Your task to perform on an android device: turn off smart reply in the gmail app Image 0: 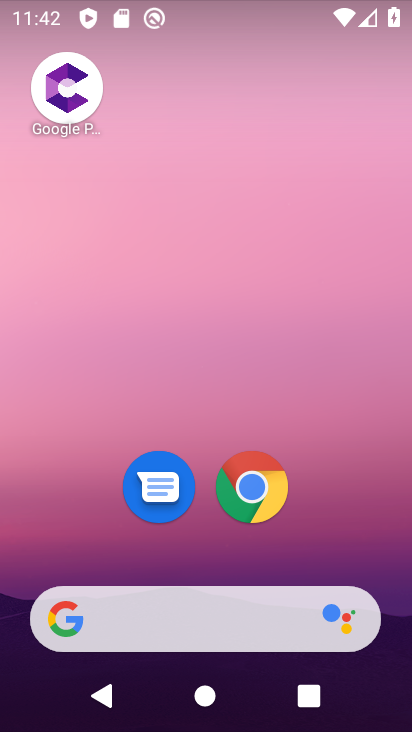
Step 0: drag from (308, 545) to (255, 68)
Your task to perform on an android device: turn off smart reply in the gmail app Image 1: 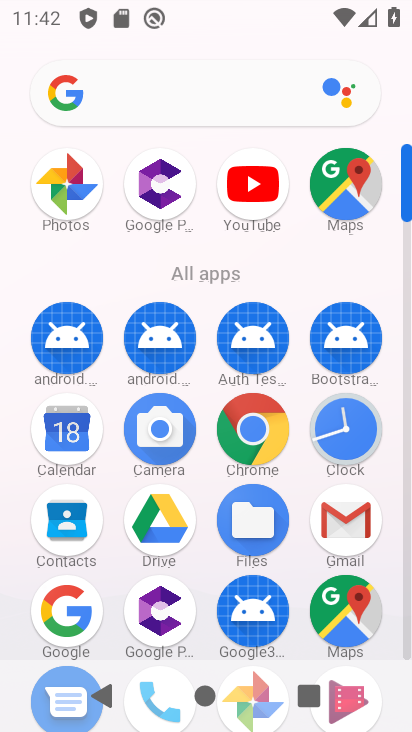
Step 1: click (323, 512)
Your task to perform on an android device: turn off smart reply in the gmail app Image 2: 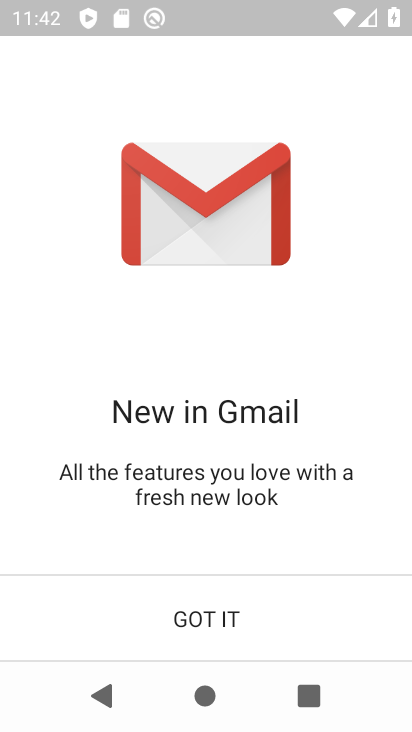
Step 2: click (224, 620)
Your task to perform on an android device: turn off smart reply in the gmail app Image 3: 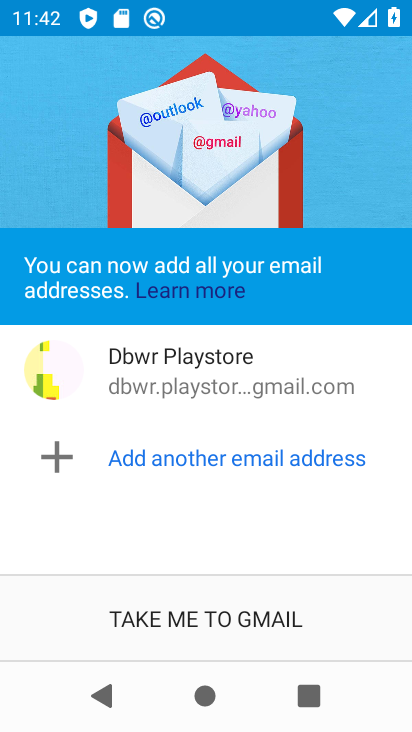
Step 3: click (224, 620)
Your task to perform on an android device: turn off smart reply in the gmail app Image 4: 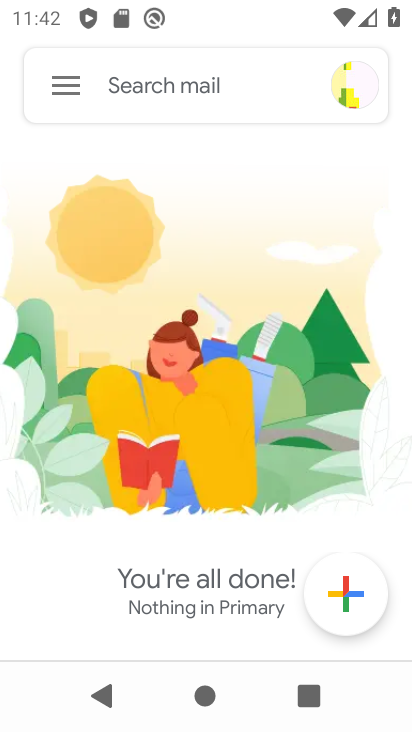
Step 4: click (64, 92)
Your task to perform on an android device: turn off smart reply in the gmail app Image 5: 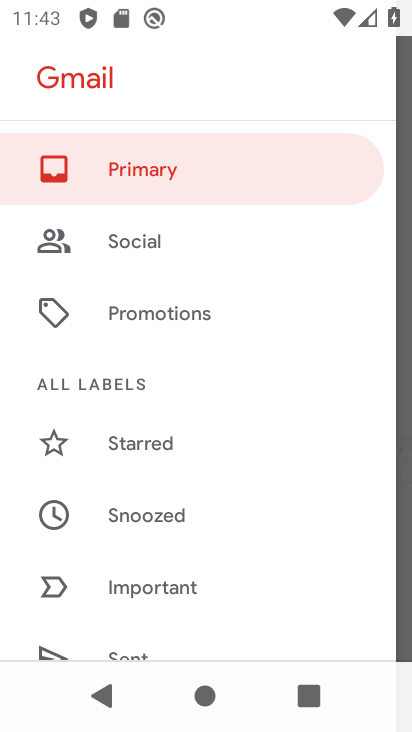
Step 5: drag from (308, 525) to (272, 187)
Your task to perform on an android device: turn off smart reply in the gmail app Image 6: 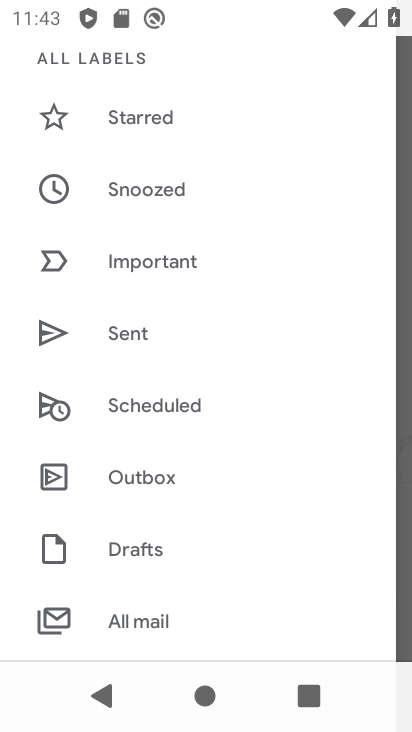
Step 6: drag from (272, 615) to (237, 68)
Your task to perform on an android device: turn off smart reply in the gmail app Image 7: 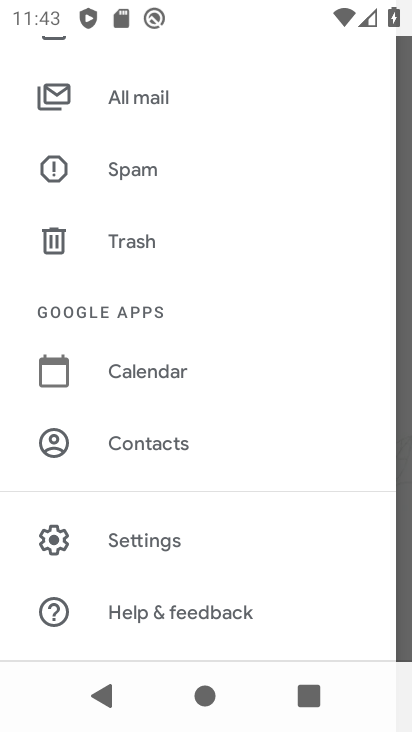
Step 7: click (146, 538)
Your task to perform on an android device: turn off smart reply in the gmail app Image 8: 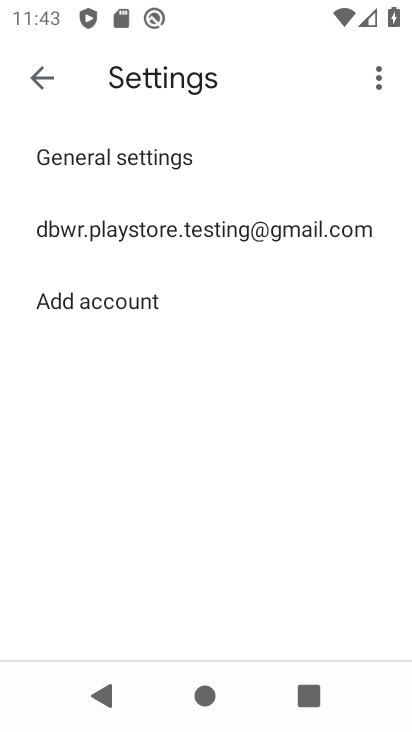
Step 8: click (193, 235)
Your task to perform on an android device: turn off smart reply in the gmail app Image 9: 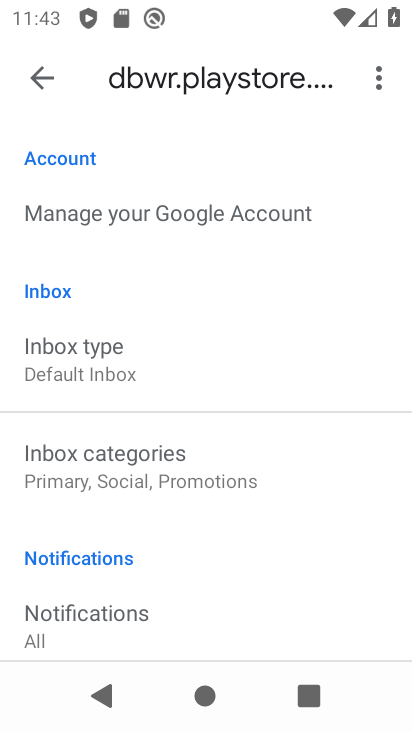
Step 9: drag from (327, 572) to (326, 199)
Your task to perform on an android device: turn off smart reply in the gmail app Image 10: 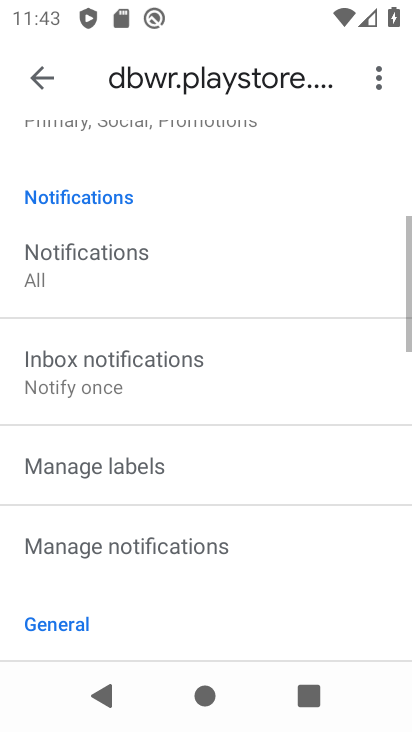
Step 10: drag from (335, 508) to (328, 161)
Your task to perform on an android device: turn off smart reply in the gmail app Image 11: 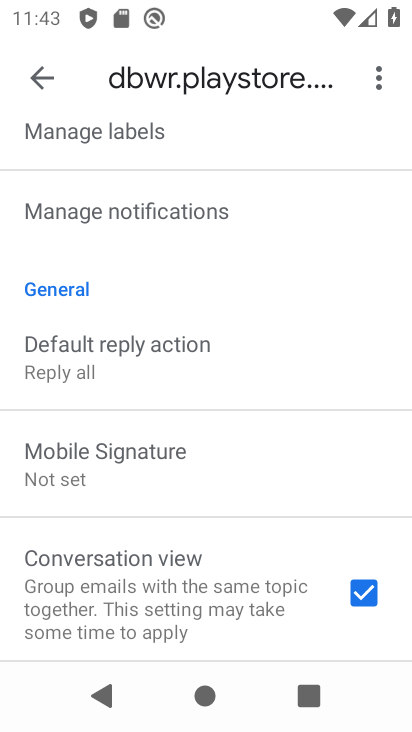
Step 11: click (283, 222)
Your task to perform on an android device: turn off smart reply in the gmail app Image 12: 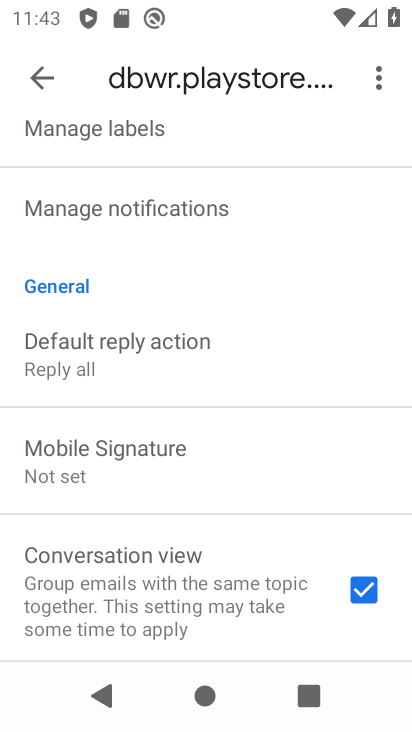
Step 12: drag from (256, 419) to (282, 130)
Your task to perform on an android device: turn off smart reply in the gmail app Image 13: 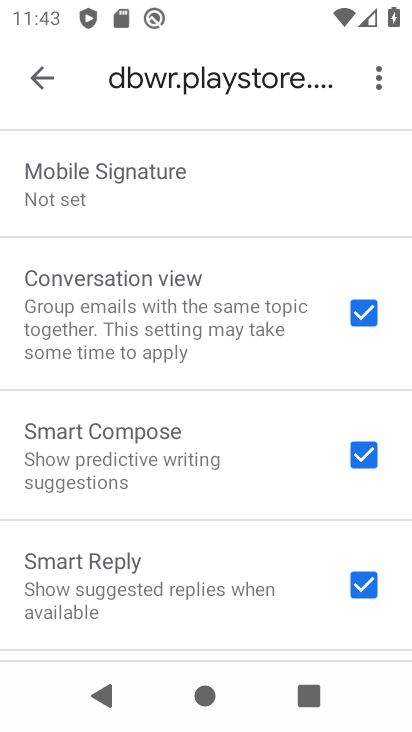
Step 13: click (367, 580)
Your task to perform on an android device: turn off smart reply in the gmail app Image 14: 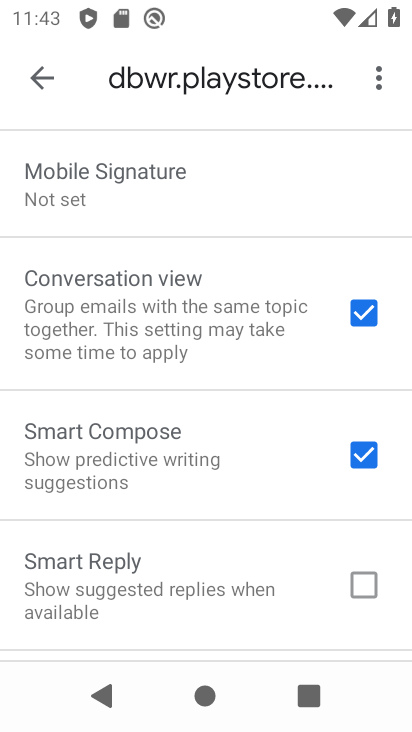
Step 14: task complete